Your task to perform on an android device: Open settings on Google Maps Image 0: 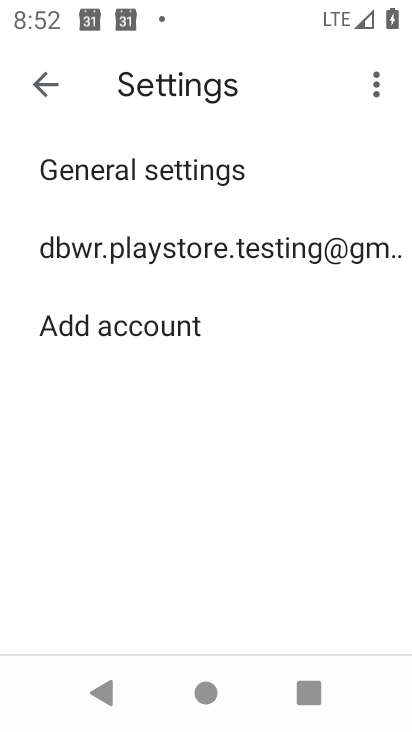
Step 0: press home button
Your task to perform on an android device: Open settings on Google Maps Image 1: 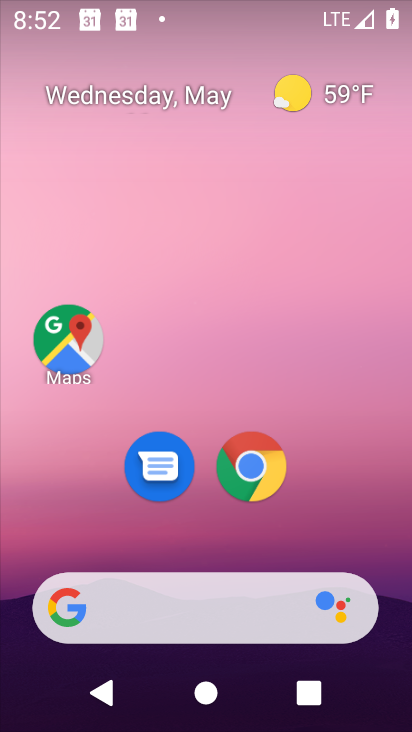
Step 1: drag from (324, 517) to (332, 227)
Your task to perform on an android device: Open settings on Google Maps Image 2: 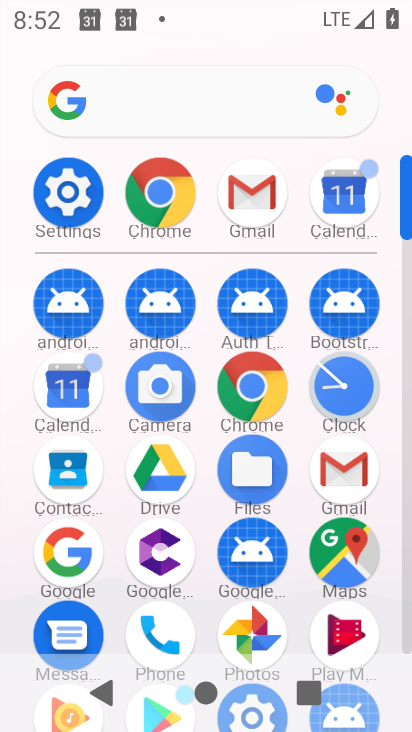
Step 2: click (355, 537)
Your task to perform on an android device: Open settings on Google Maps Image 3: 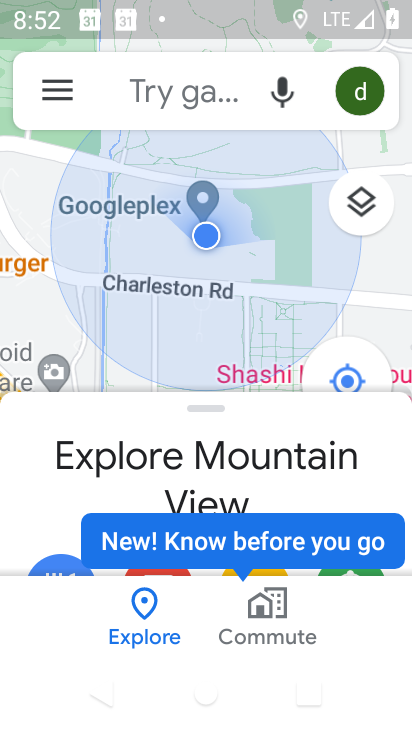
Step 3: click (49, 89)
Your task to perform on an android device: Open settings on Google Maps Image 4: 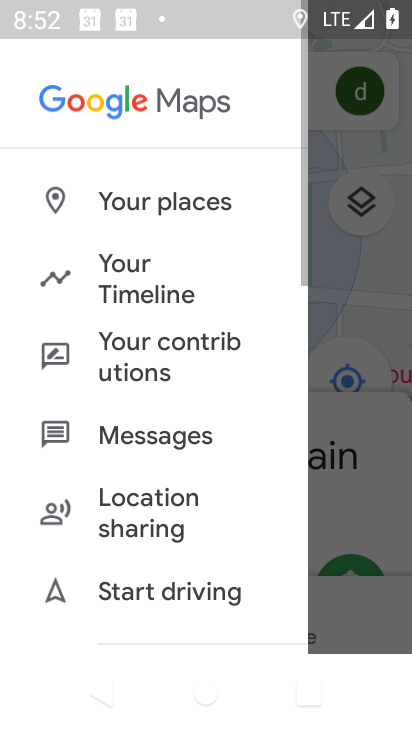
Step 4: drag from (171, 573) to (226, 185)
Your task to perform on an android device: Open settings on Google Maps Image 5: 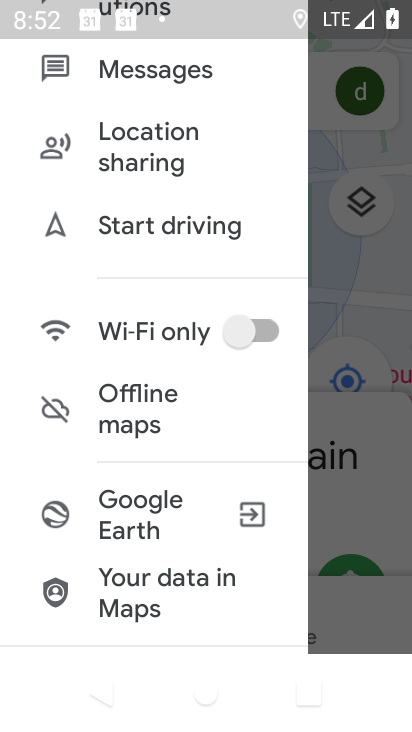
Step 5: drag from (117, 616) to (192, 144)
Your task to perform on an android device: Open settings on Google Maps Image 6: 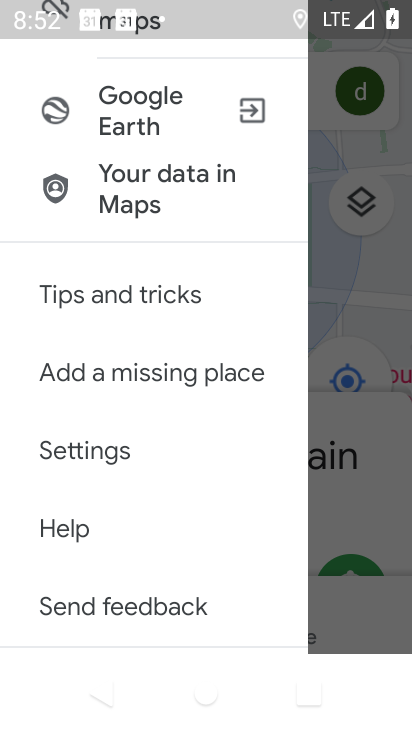
Step 6: click (109, 453)
Your task to perform on an android device: Open settings on Google Maps Image 7: 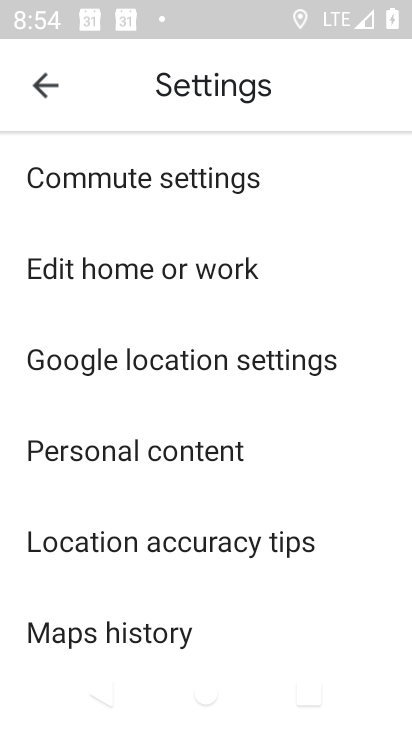
Step 7: click (52, 90)
Your task to perform on an android device: Open settings on Google Maps Image 8: 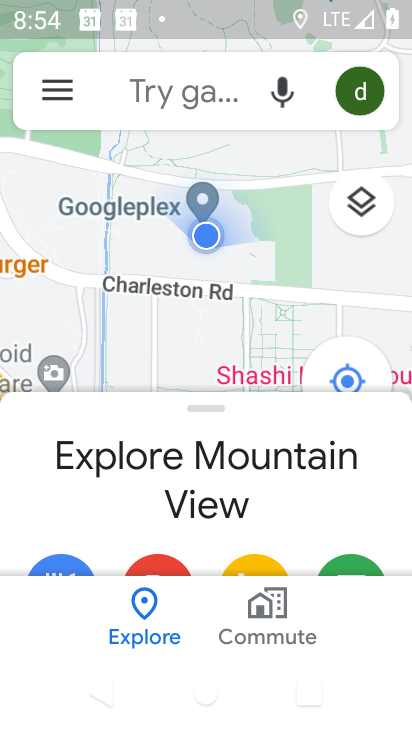
Step 8: task complete